Your task to perform on an android device: Open Google Chrome Image 0: 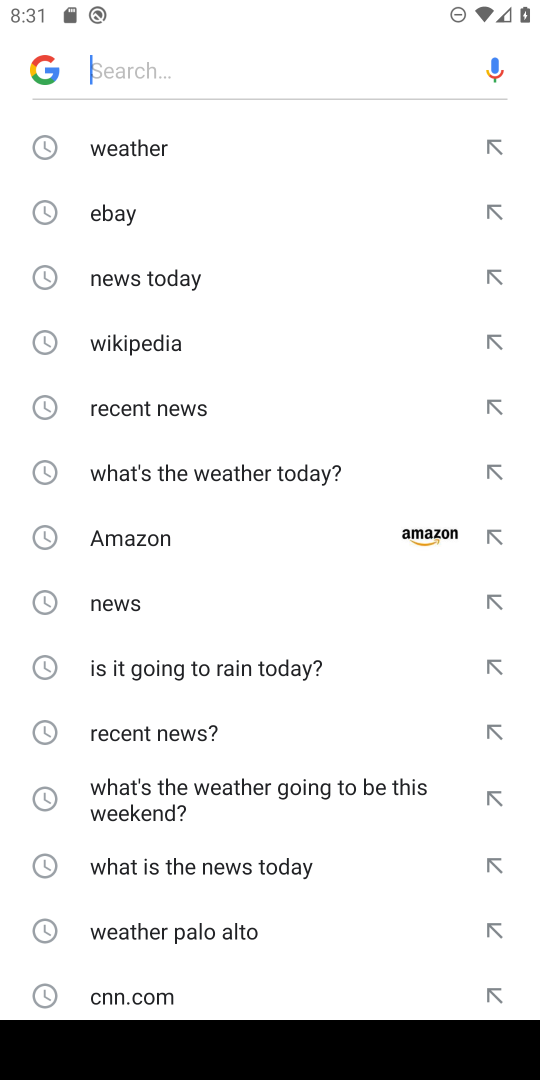
Step 0: press home button
Your task to perform on an android device: Open Google Chrome Image 1: 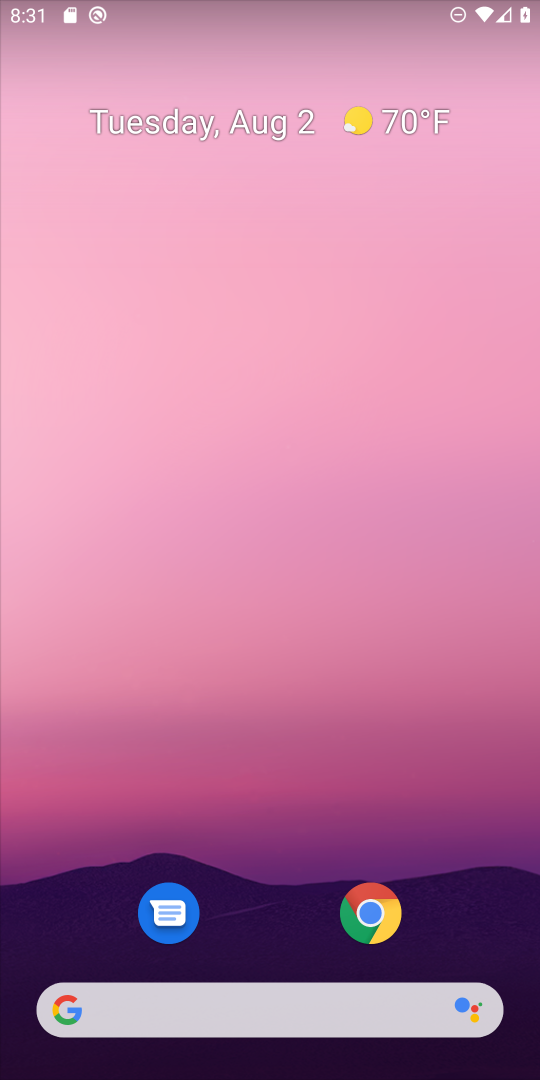
Step 1: click (383, 917)
Your task to perform on an android device: Open Google Chrome Image 2: 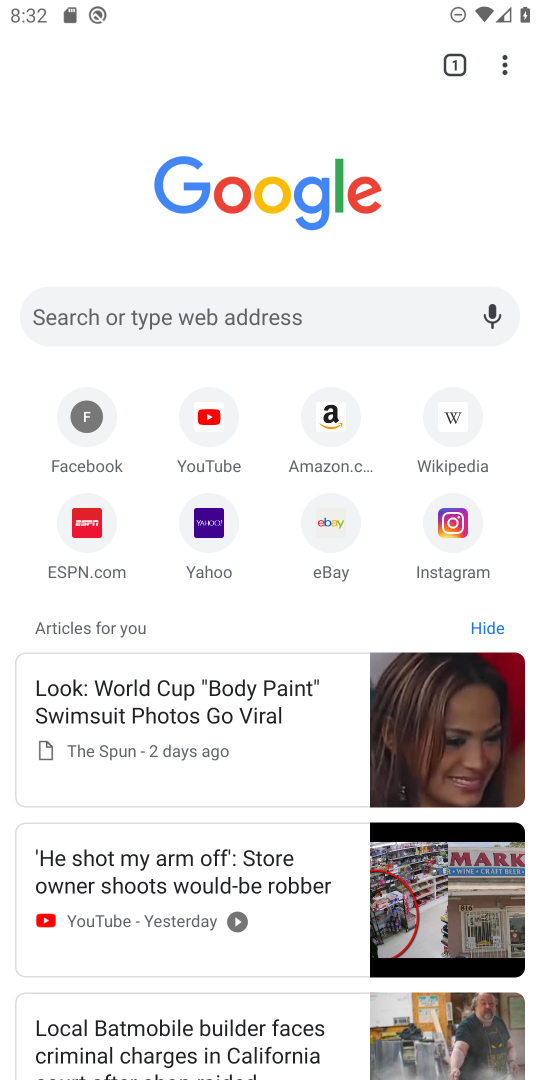
Step 2: task complete